Your task to perform on an android device: Open Google Image 0: 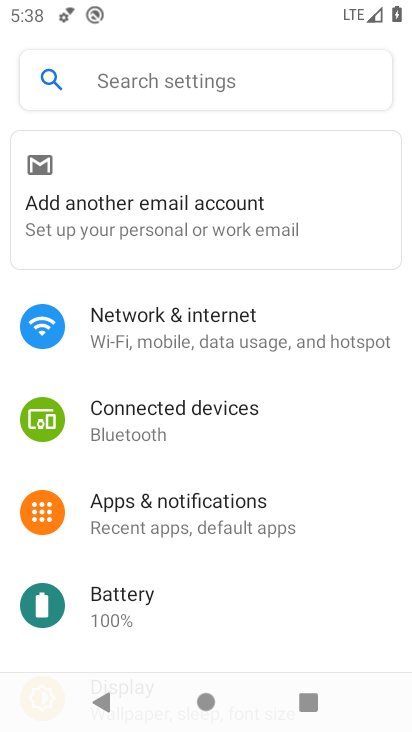
Step 0: press home button
Your task to perform on an android device: Open Google Image 1: 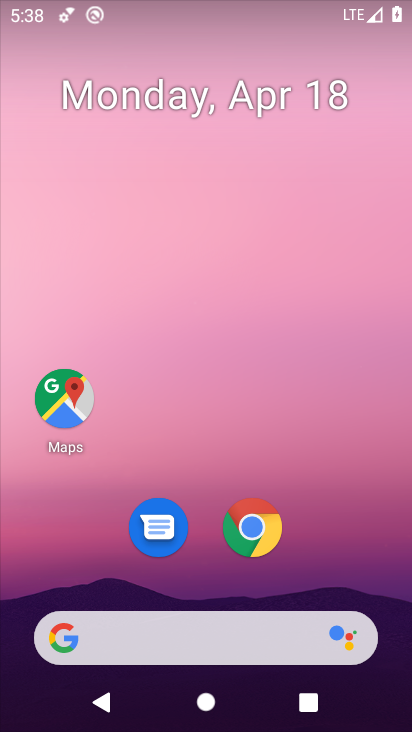
Step 1: drag from (239, 610) to (260, 249)
Your task to perform on an android device: Open Google Image 2: 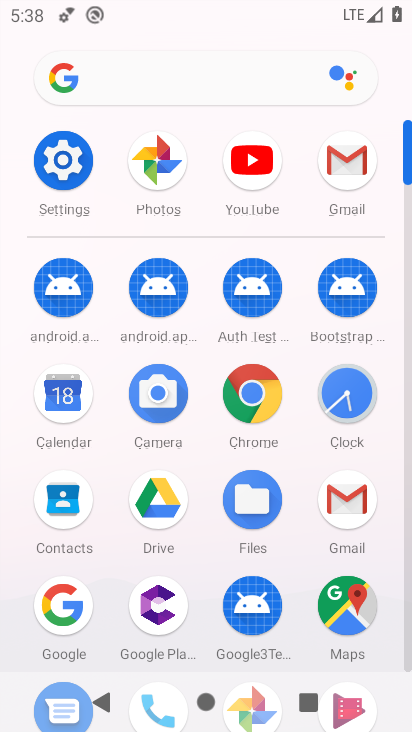
Step 2: click (61, 605)
Your task to perform on an android device: Open Google Image 3: 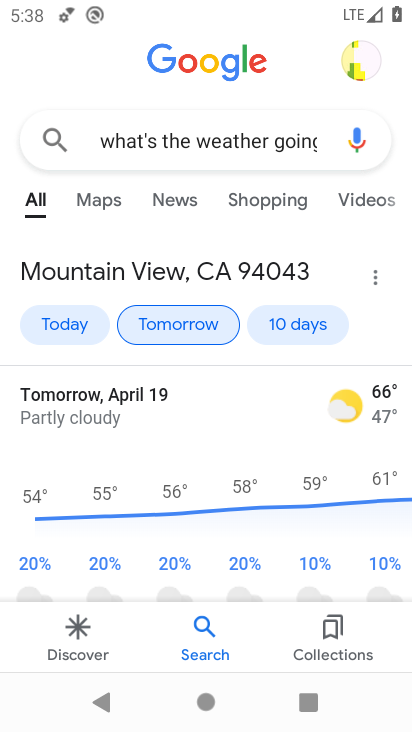
Step 3: click (326, 143)
Your task to perform on an android device: Open Google Image 4: 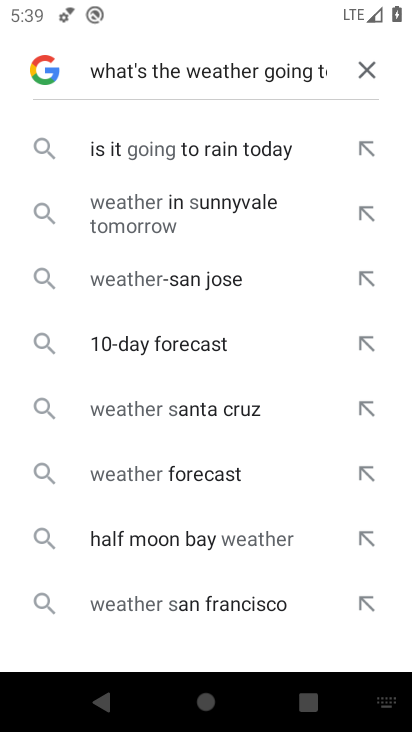
Step 4: click (371, 68)
Your task to perform on an android device: Open Google Image 5: 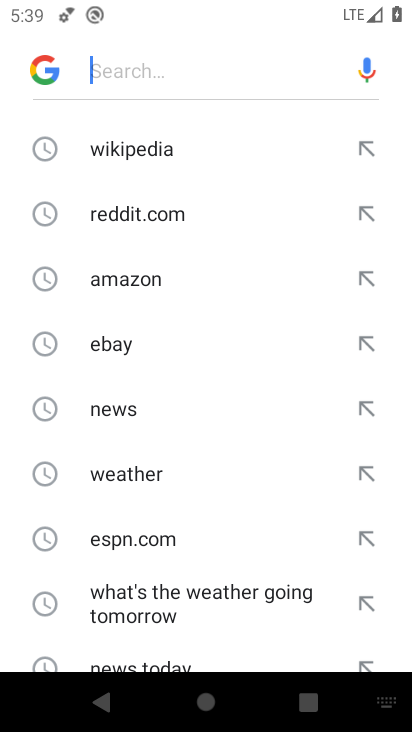
Step 5: task complete